Your task to perform on an android device: open the mobile data screen to see how much data has been used Image 0: 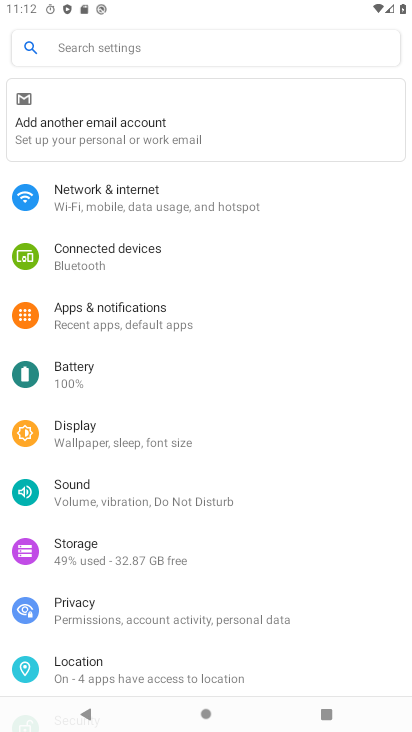
Step 0: drag from (179, 139) to (179, 693)
Your task to perform on an android device: open the mobile data screen to see how much data has been used Image 1: 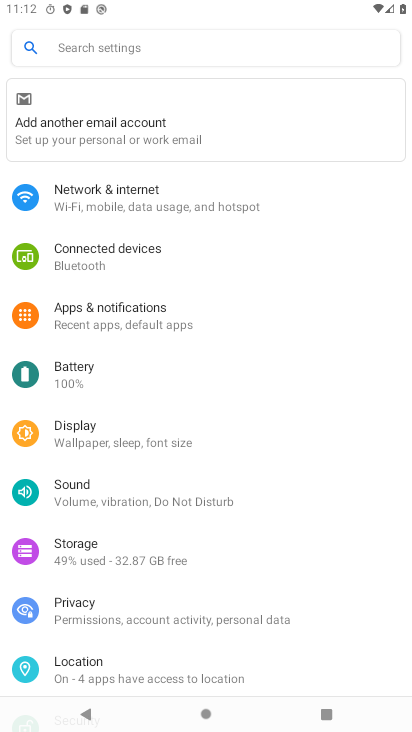
Step 1: click (142, 190)
Your task to perform on an android device: open the mobile data screen to see how much data has been used Image 2: 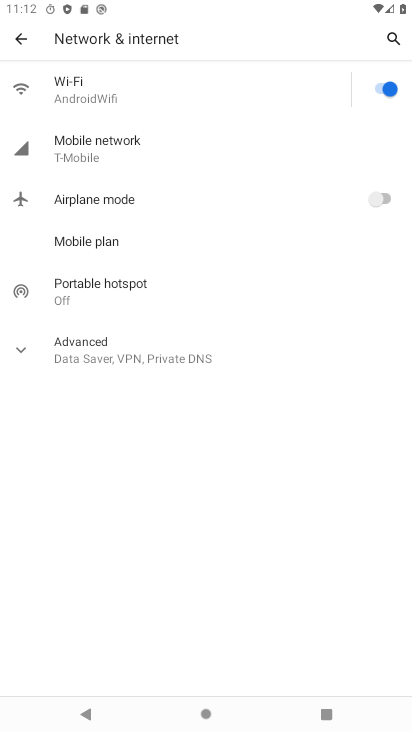
Step 2: click (113, 151)
Your task to perform on an android device: open the mobile data screen to see how much data has been used Image 3: 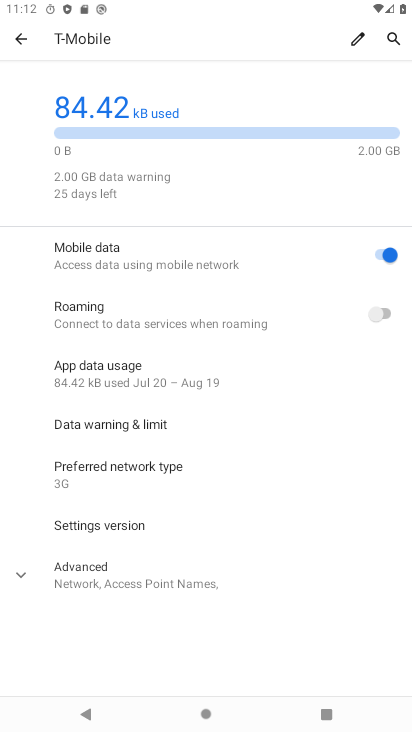
Step 3: task complete